Your task to perform on an android device: Open Youtube and go to the subscriptions tab Image 0: 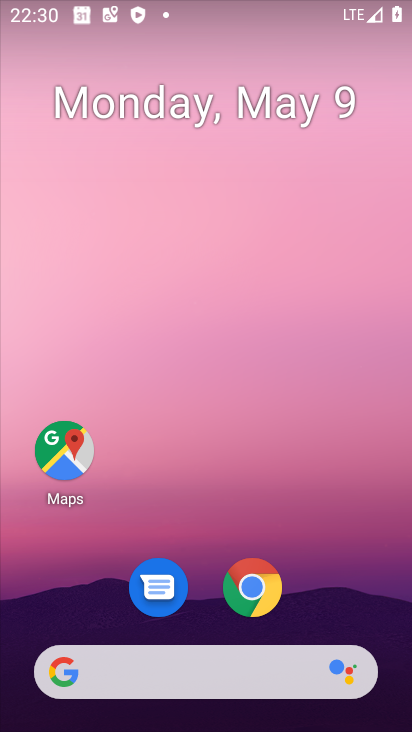
Step 0: drag from (197, 608) to (224, 91)
Your task to perform on an android device: Open Youtube and go to the subscriptions tab Image 1: 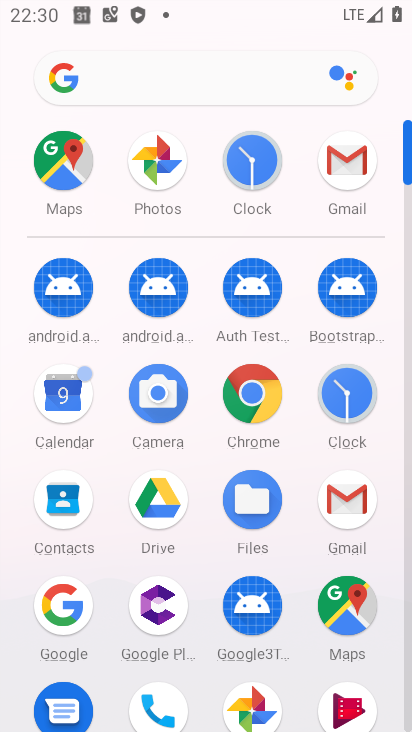
Step 1: drag from (291, 654) to (357, 1)
Your task to perform on an android device: Open Youtube and go to the subscriptions tab Image 2: 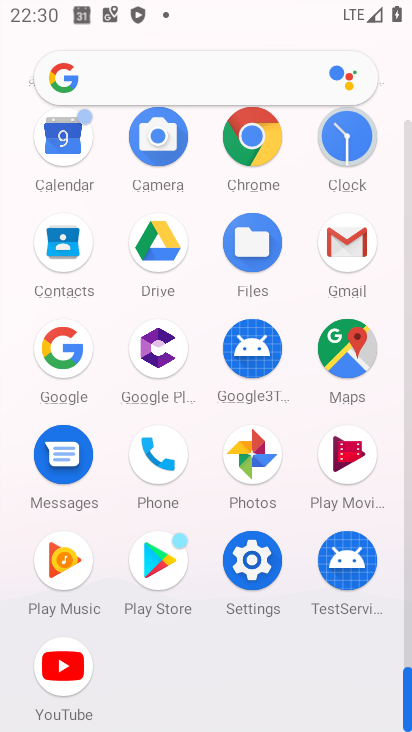
Step 2: click (47, 690)
Your task to perform on an android device: Open Youtube and go to the subscriptions tab Image 3: 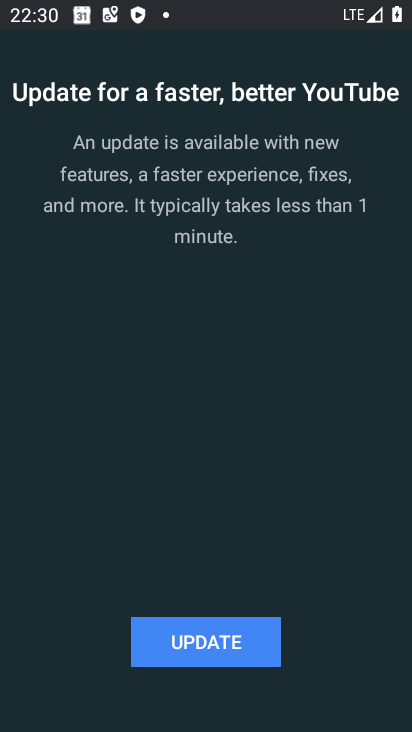
Step 3: click (259, 638)
Your task to perform on an android device: Open Youtube and go to the subscriptions tab Image 4: 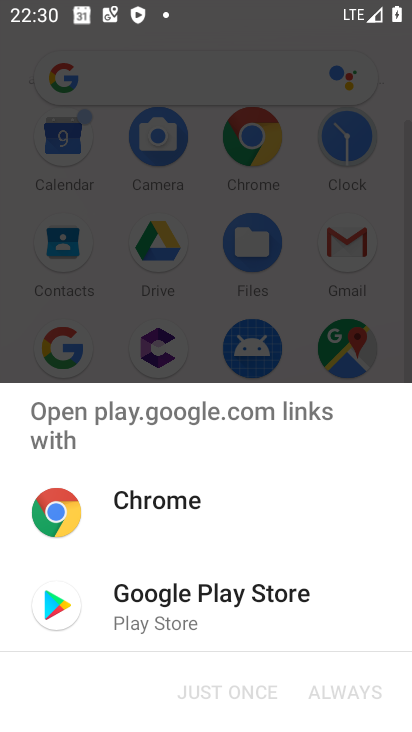
Step 4: click (253, 623)
Your task to perform on an android device: Open Youtube and go to the subscriptions tab Image 5: 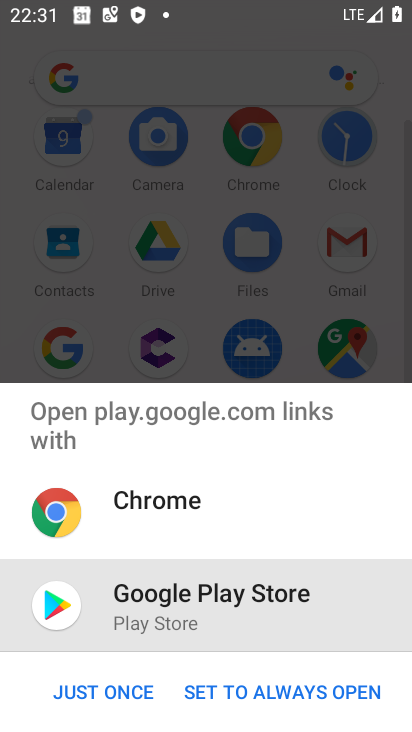
Step 5: click (126, 690)
Your task to perform on an android device: Open Youtube and go to the subscriptions tab Image 6: 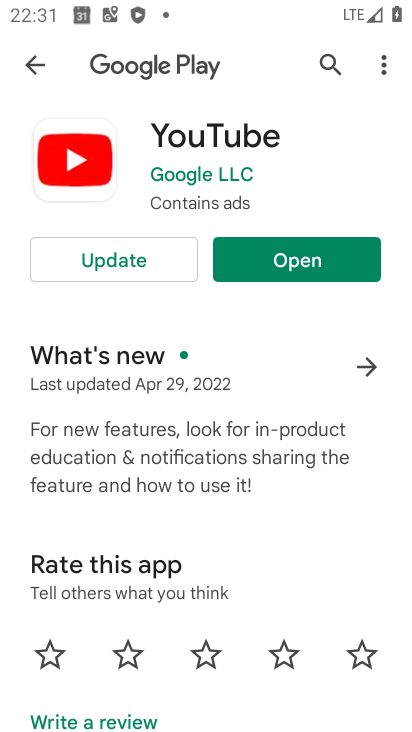
Step 6: click (128, 254)
Your task to perform on an android device: Open Youtube and go to the subscriptions tab Image 7: 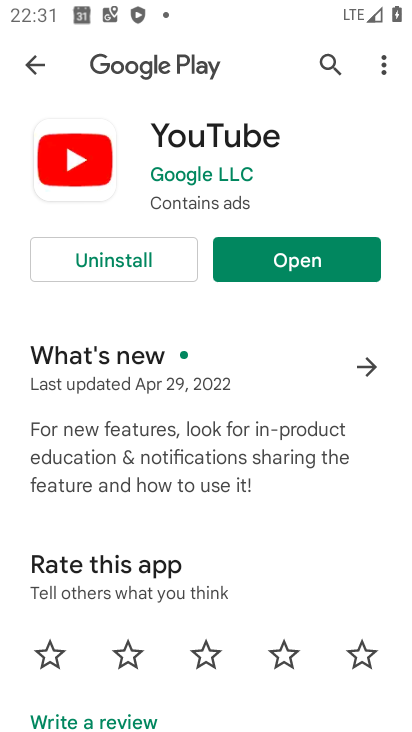
Step 7: click (246, 256)
Your task to perform on an android device: Open Youtube and go to the subscriptions tab Image 8: 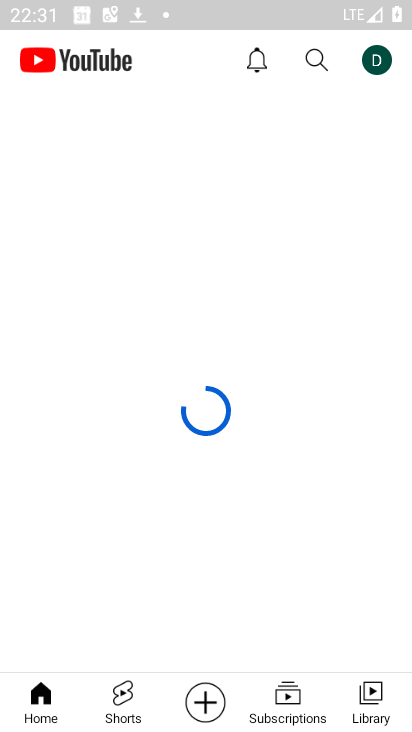
Step 8: click (268, 689)
Your task to perform on an android device: Open Youtube and go to the subscriptions tab Image 9: 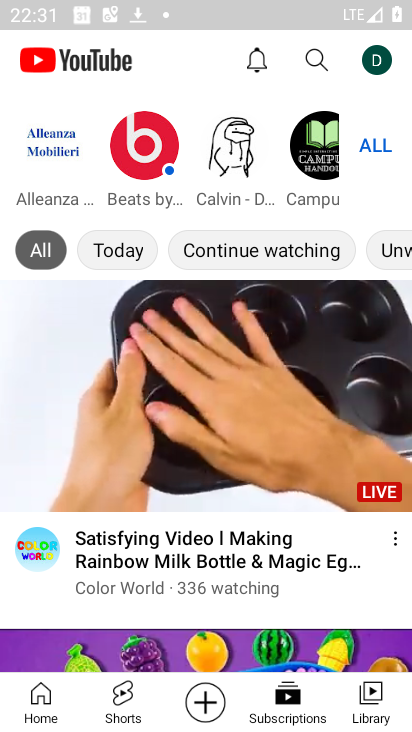
Step 9: task complete